Your task to perform on an android device: refresh tabs in the chrome app Image 0: 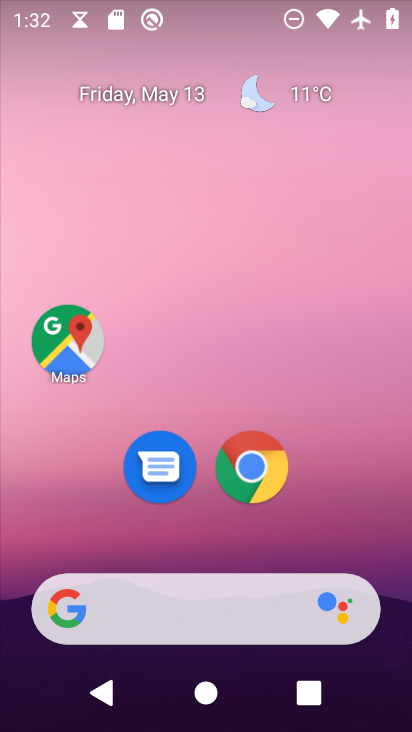
Step 0: click (264, 468)
Your task to perform on an android device: refresh tabs in the chrome app Image 1: 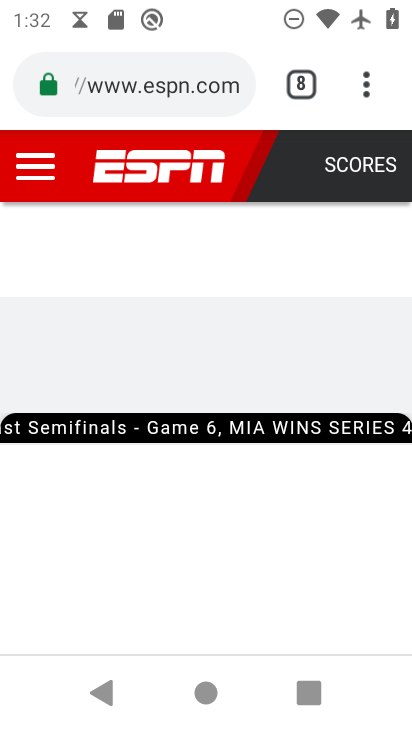
Step 1: click (368, 71)
Your task to perform on an android device: refresh tabs in the chrome app Image 2: 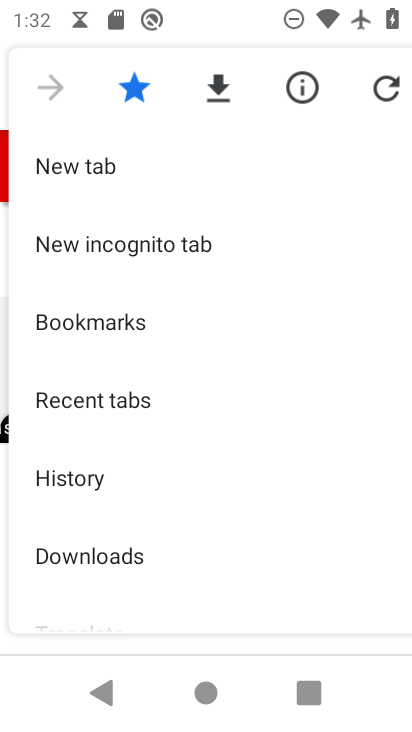
Step 2: click (390, 76)
Your task to perform on an android device: refresh tabs in the chrome app Image 3: 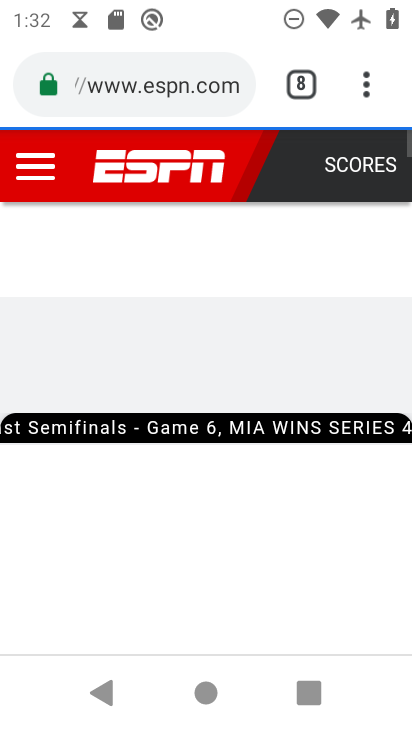
Step 3: task complete